Your task to perform on an android device: What's on my calendar today? Image 0: 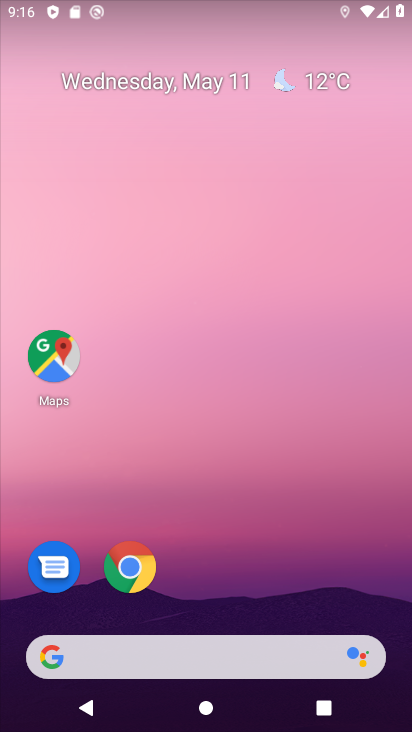
Step 0: drag from (160, 613) to (216, 298)
Your task to perform on an android device: What's on my calendar today? Image 1: 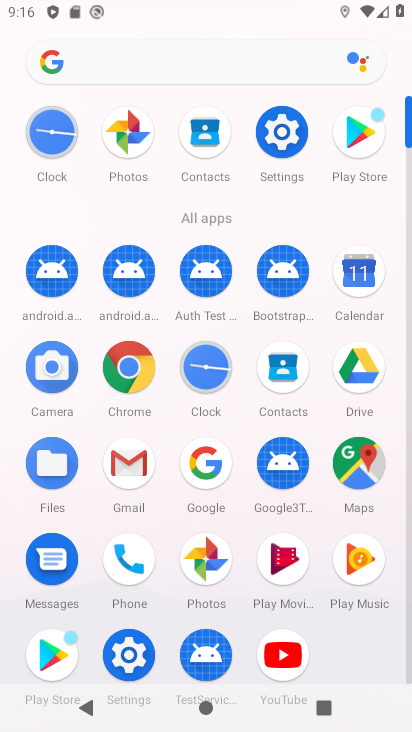
Step 1: click (358, 285)
Your task to perform on an android device: What's on my calendar today? Image 2: 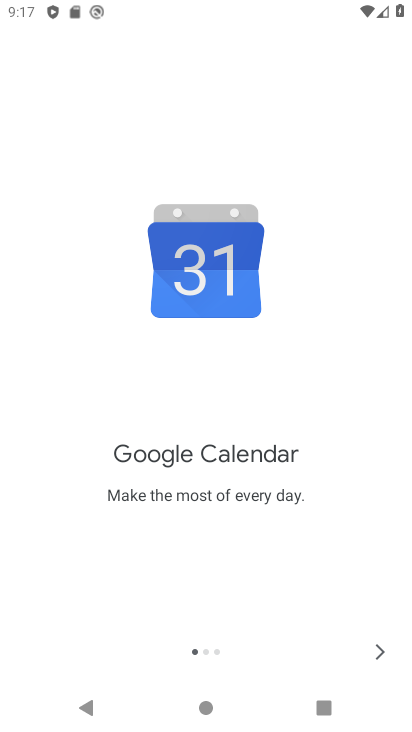
Step 2: click (374, 643)
Your task to perform on an android device: What's on my calendar today? Image 3: 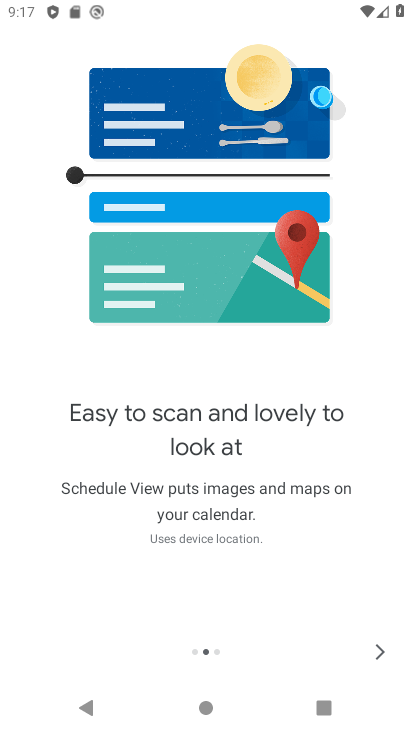
Step 3: click (383, 648)
Your task to perform on an android device: What's on my calendar today? Image 4: 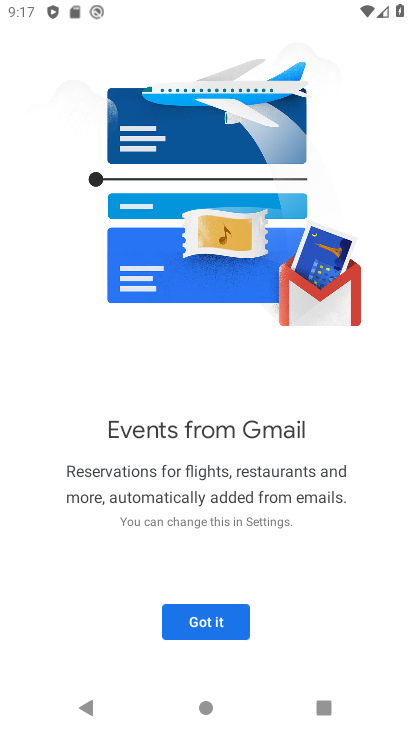
Step 4: click (202, 617)
Your task to perform on an android device: What's on my calendar today? Image 5: 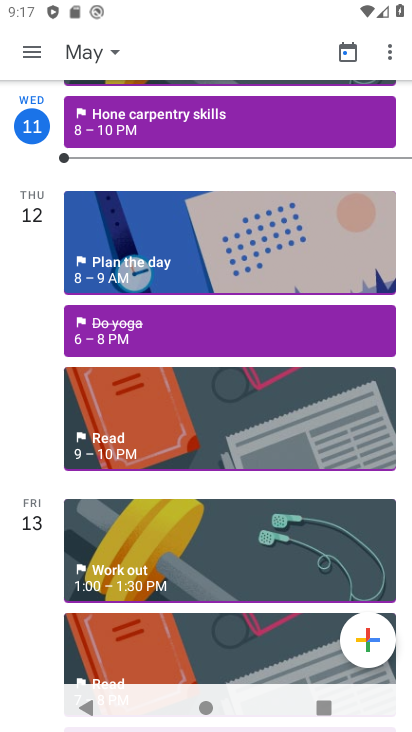
Step 5: click (103, 58)
Your task to perform on an android device: What's on my calendar today? Image 6: 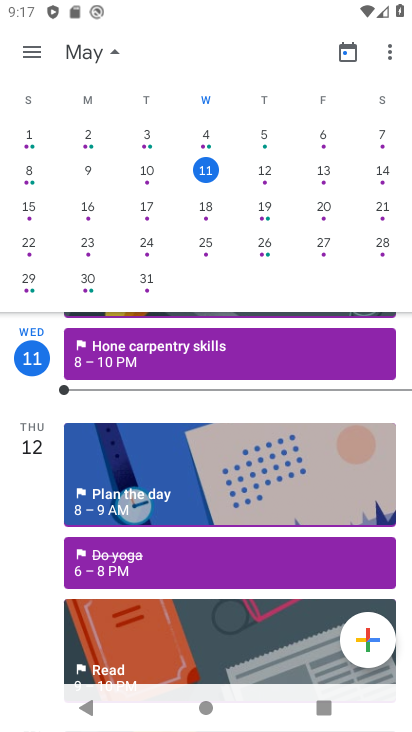
Step 6: click (258, 175)
Your task to perform on an android device: What's on my calendar today? Image 7: 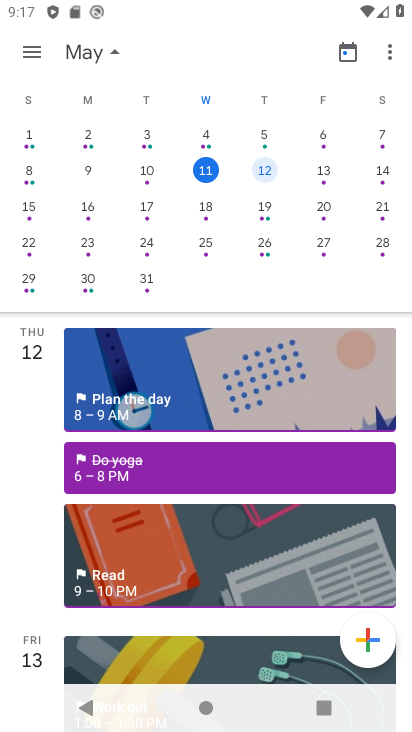
Step 7: task complete